Your task to perform on an android device: open sync settings in chrome Image 0: 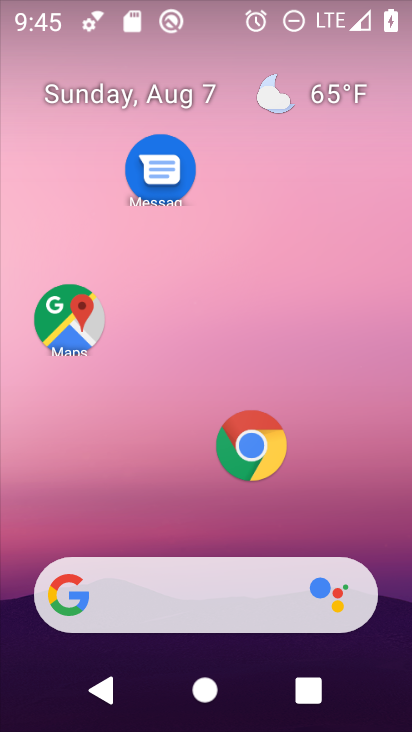
Step 0: press home button
Your task to perform on an android device: open sync settings in chrome Image 1: 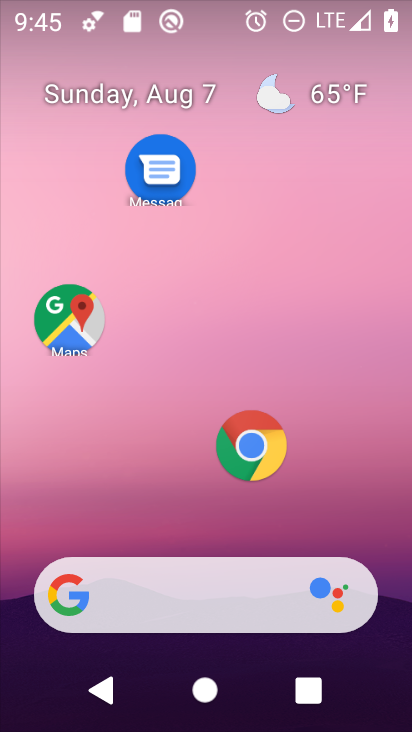
Step 1: click (249, 439)
Your task to perform on an android device: open sync settings in chrome Image 2: 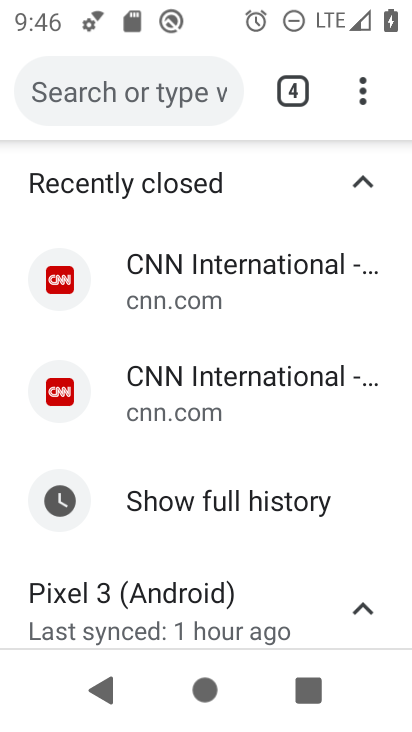
Step 2: click (367, 85)
Your task to perform on an android device: open sync settings in chrome Image 3: 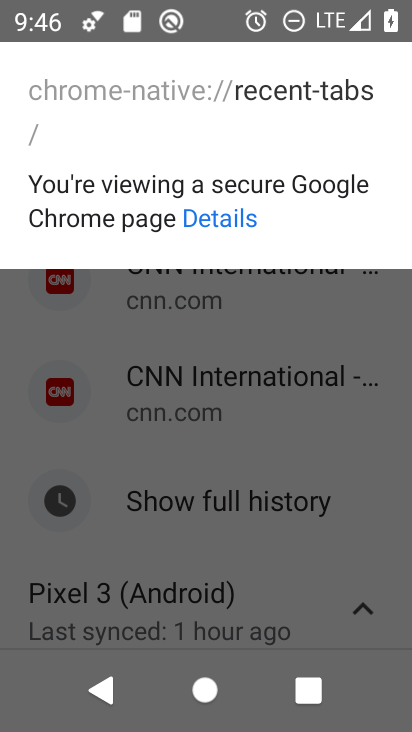
Step 3: click (224, 347)
Your task to perform on an android device: open sync settings in chrome Image 4: 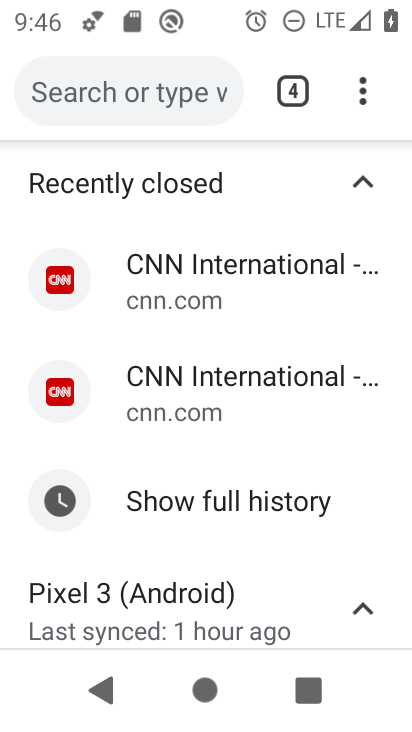
Step 4: click (359, 93)
Your task to perform on an android device: open sync settings in chrome Image 5: 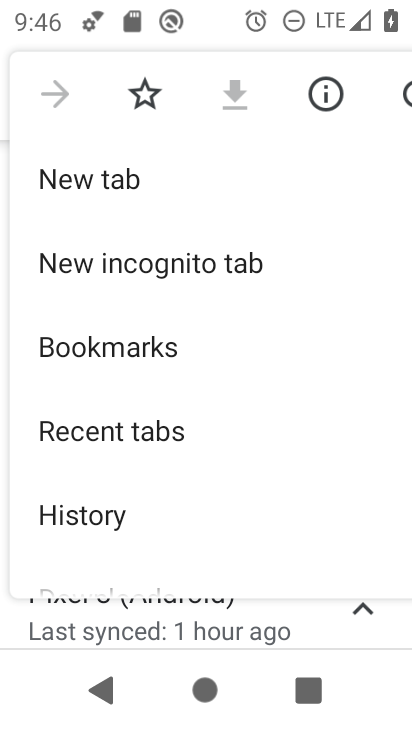
Step 5: drag from (197, 278) to (217, 23)
Your task to perform on an android device: open sync settings in chrome Image 6: 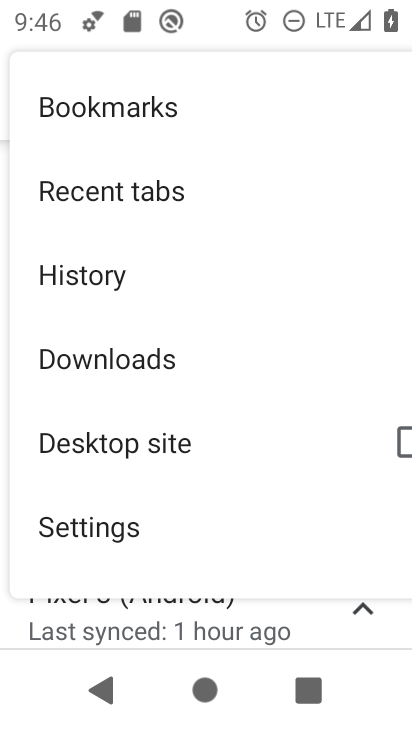
Step 6: click (146, 526)
Your task to perform on an android device: open sync settings in chrome Image 7: 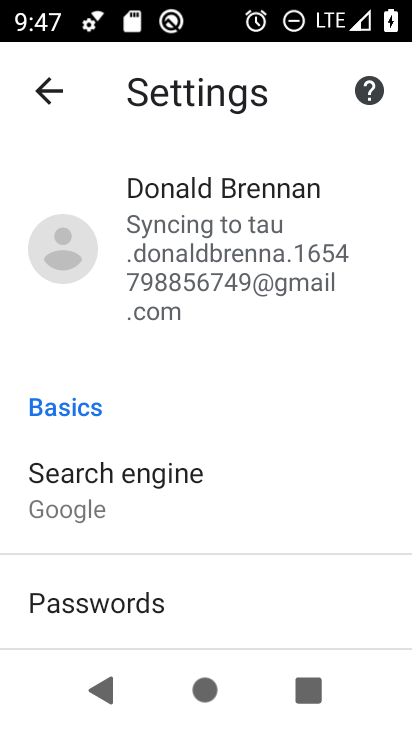
Step 7: click (174, 255)
Your task to perform on an android device: open sync settings in chrome Image 8: 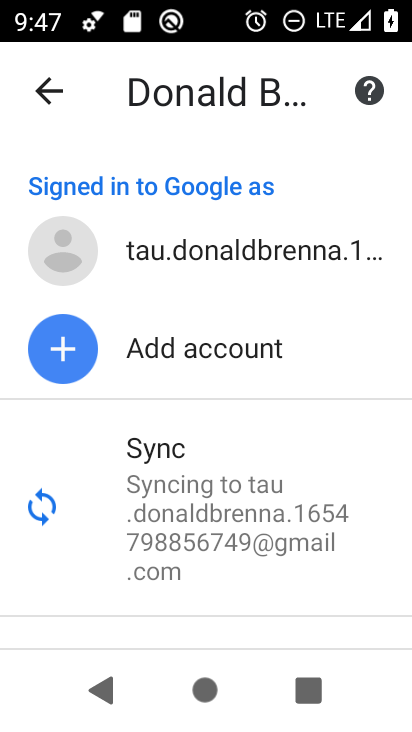
Step 8: click (188, 517)
Your task to perform on an android device: open sync settings in chrome Image 9: 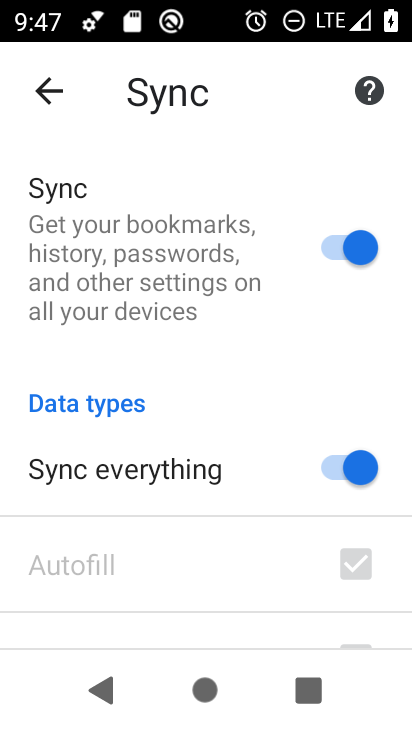
Step 9: task complete